Your task to perform on an android device: toggle sleep mode Image 0: 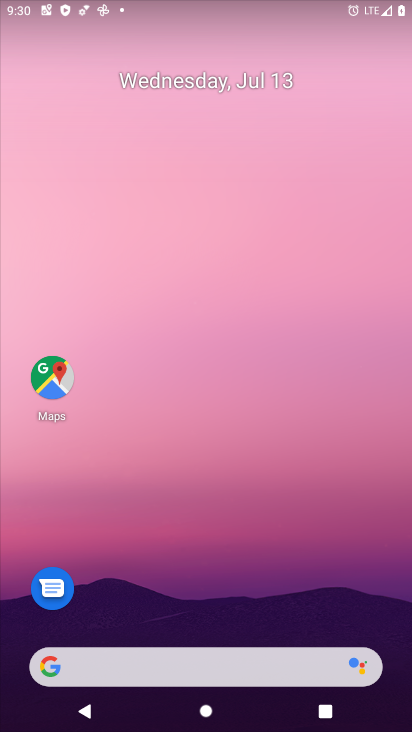
Step 0: drag from (152, 686) to (400, 38)
Your task to perform on an android device: toggle sleep mode Image 1: 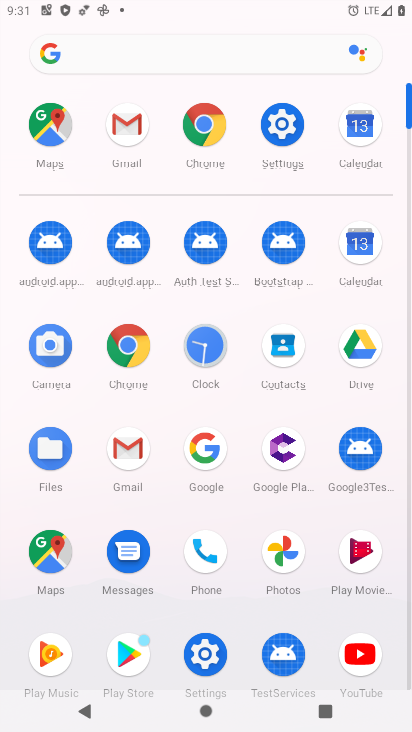
Step 1: click (278, 124)
Your task to perform on an android device: toggle sleep mode Image 2: 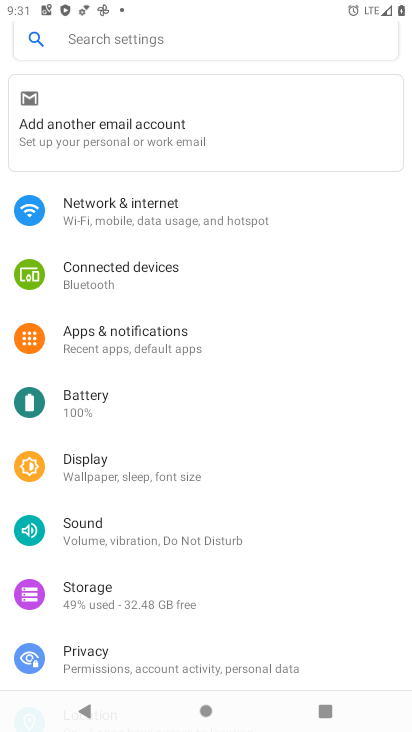
Step 2: click (172, 475)
Your task to perform on an android device: toggle sleep mode Image 3: 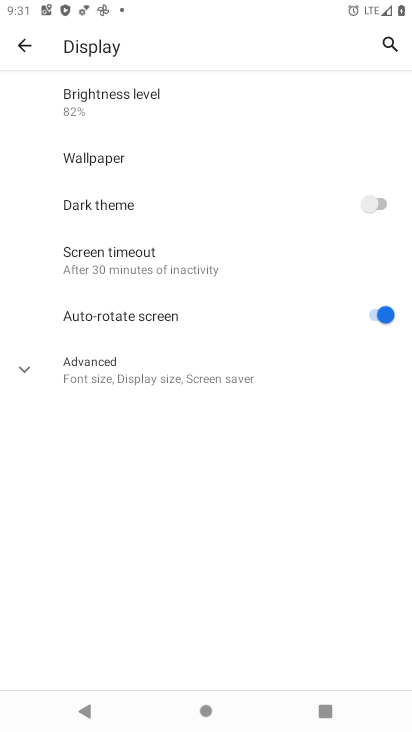
Step 3: task complete